Your task to perform on an android device: Go to Wikipedia Image 0: 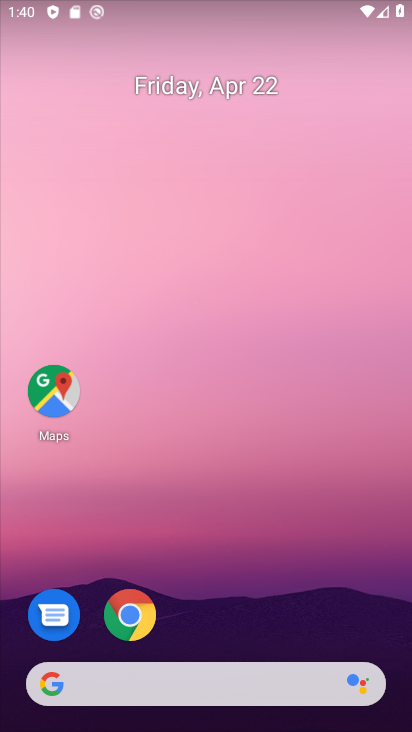
Step 0: drag from (198, 660) to (355, 66)
Your task to perform on an android device: Go to Wikipedia Image 1: 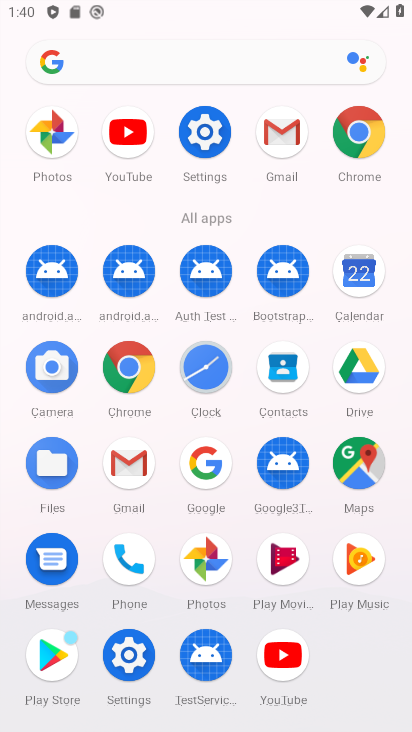
Step 1: click (143, 365)
Your task to perform on an android device: Go to Wikipedia Image 2: 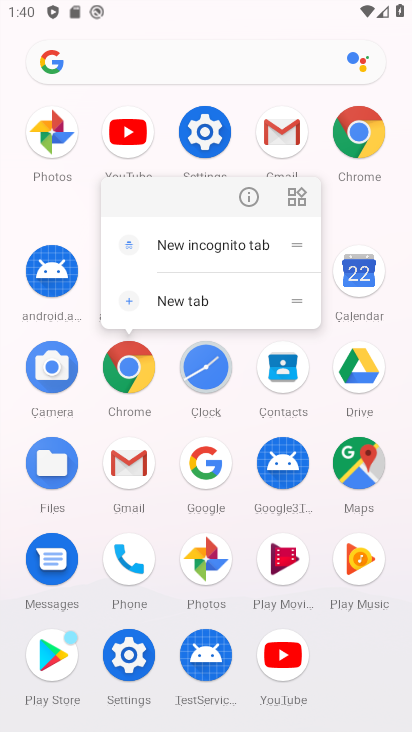
Step 2: click (133, 365)
Your task to perform on an android device: Go to Wikipedia Image 3: 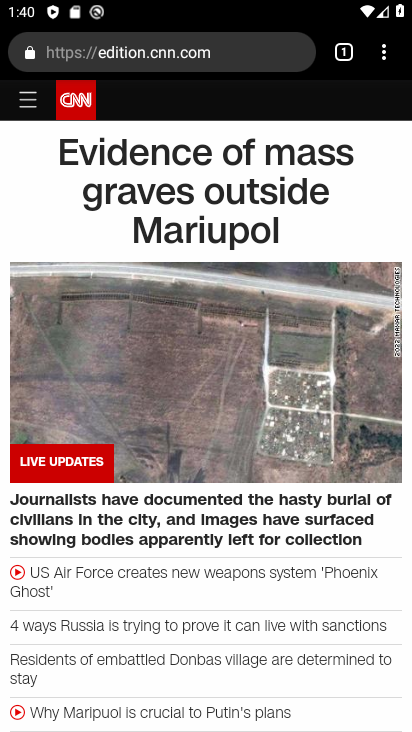
Step 3: press back button
Your task to perform on an android device: Go to Wikipedia Image 4: 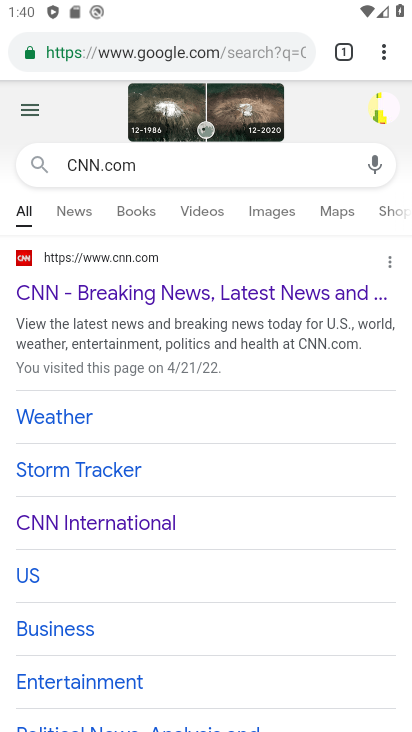
Step 4: press back button
Your task to perform on an android device: Go to Wikipedia Image 5: 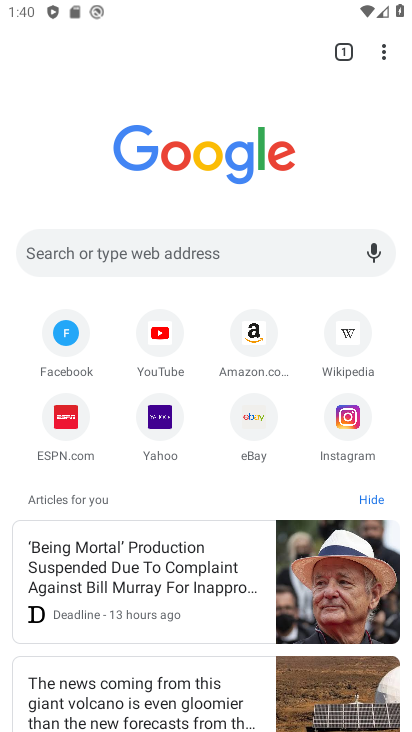
Step 5: click (347, 340)
Your task to perform on an android device: Go to Wikipedia Image 6: 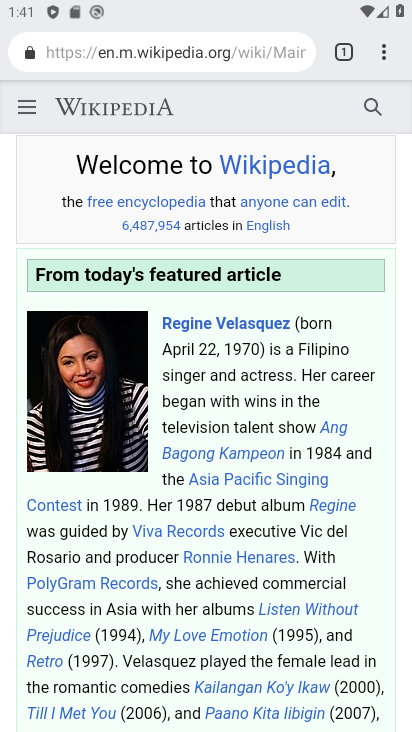
Step 6: task complete